Your task to perform on an android device: Search for Italian restaurants on Maps Image 0: 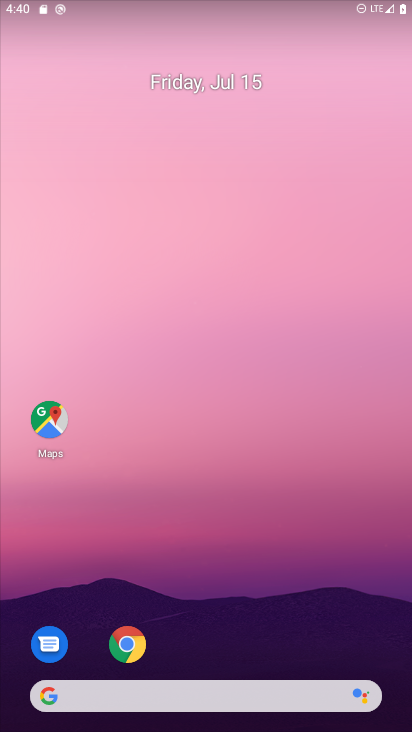
Step 0: drag from (265, 613) to (221, 341)
Your task to perform on an android device: Search for Italian restaurants on Maps Image 1: 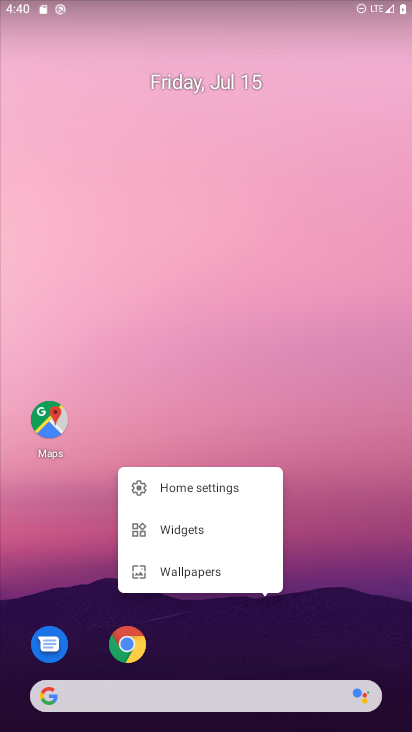
Step 1: click (38, 421)
Your task to perform on an android device: Search for Italian restaurants on Maps Image 2: 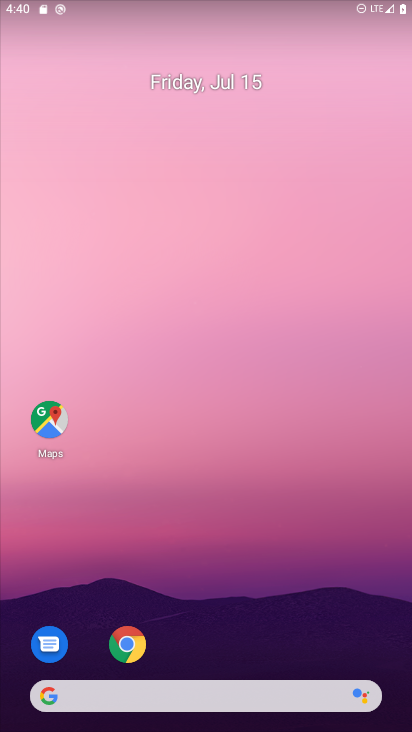
Step 2: click (49, 423)
Your task to perform on an android device: Search for Italian restaurants on Maps Image 3: 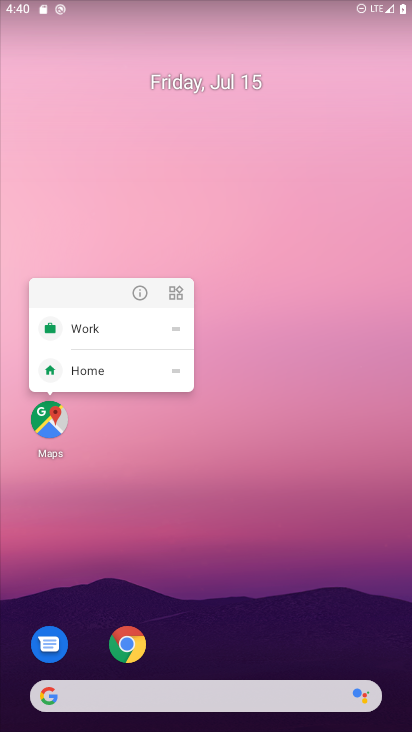
Step 3: click (63, 419)
Your task to perform on an android device: Search for Italian restaurants on Maps Image 4: 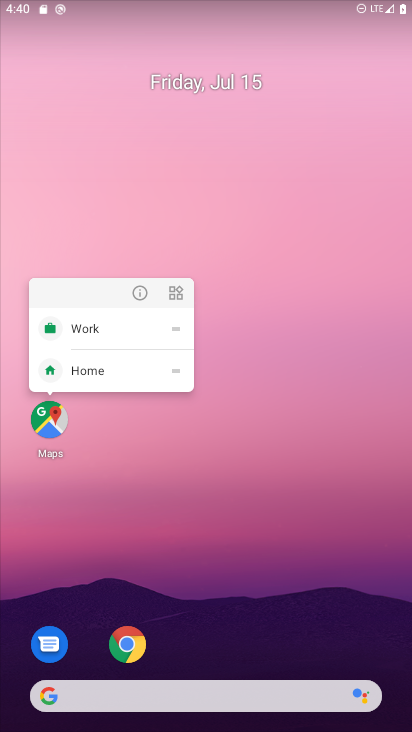
Step 4: click (63, 419)
Your task to perform on an android device: Search for Italian restaurants on Maps Image 5: 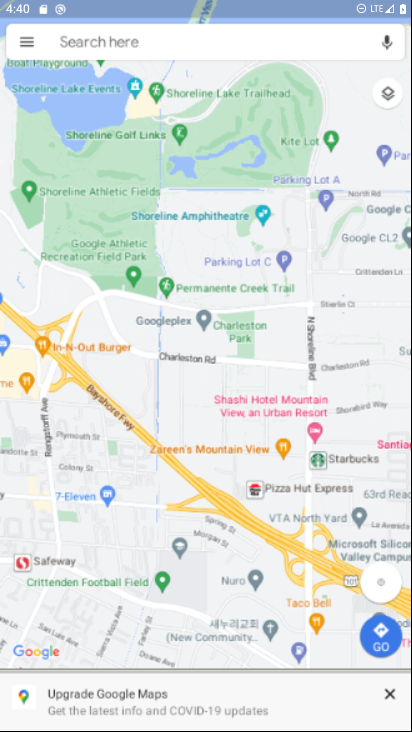
Step 5: click (209, 40)
Your task to perform on an android device: Search for Italian restaurants on Maps Image 6: 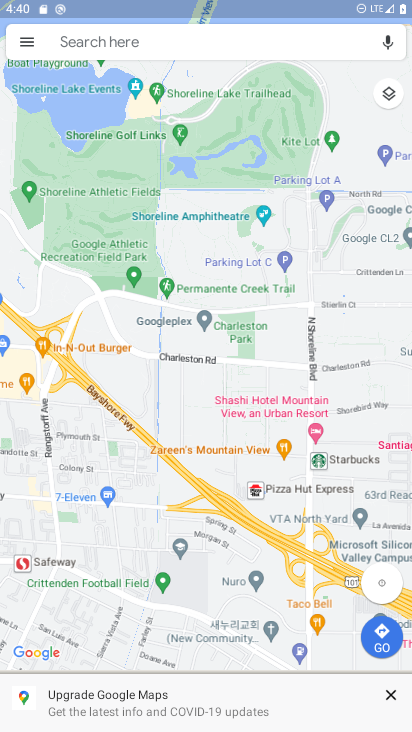
Step 6: click (129, 35)
Your task to perform on an android device: Search for Italian restaurants on Maps Image 7: 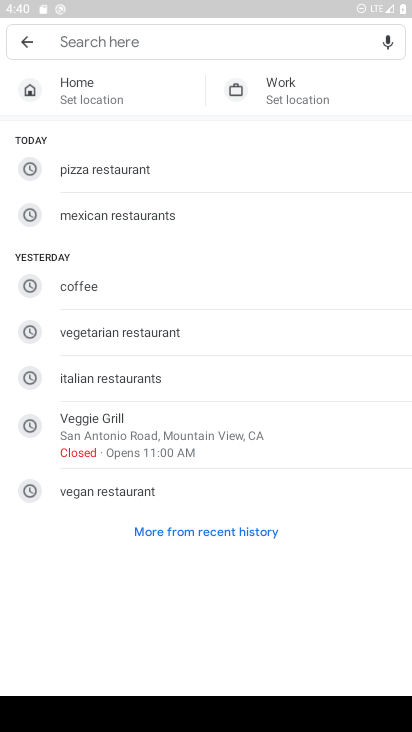
Step 7: click (88, 40)
Your task to perform on an android device: Search for Italian restaurants on Maps Image 8: 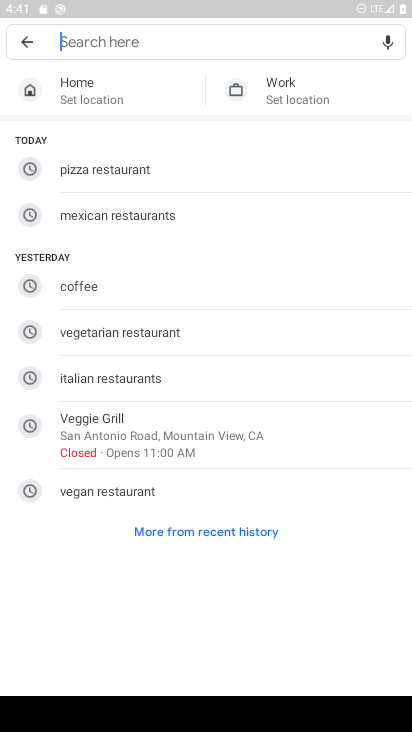
Step 8: click (97, 391)
Your task to perform on an android device: Search for Italian restaurants on Maps Image 9: 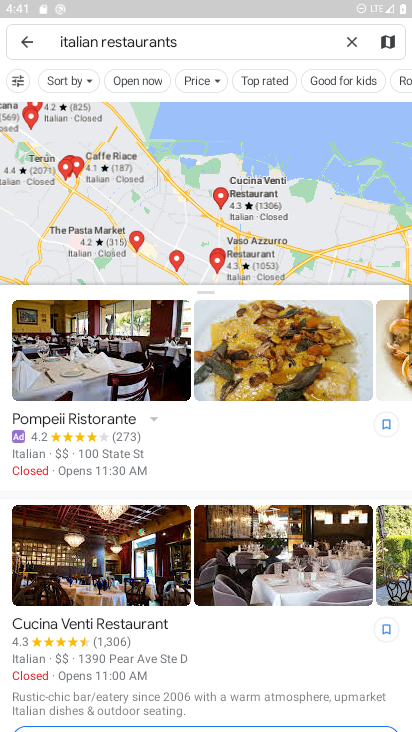
Step 9: task complete